Your task to perform on an android device: Is it going to rain this weekend? Image 0: 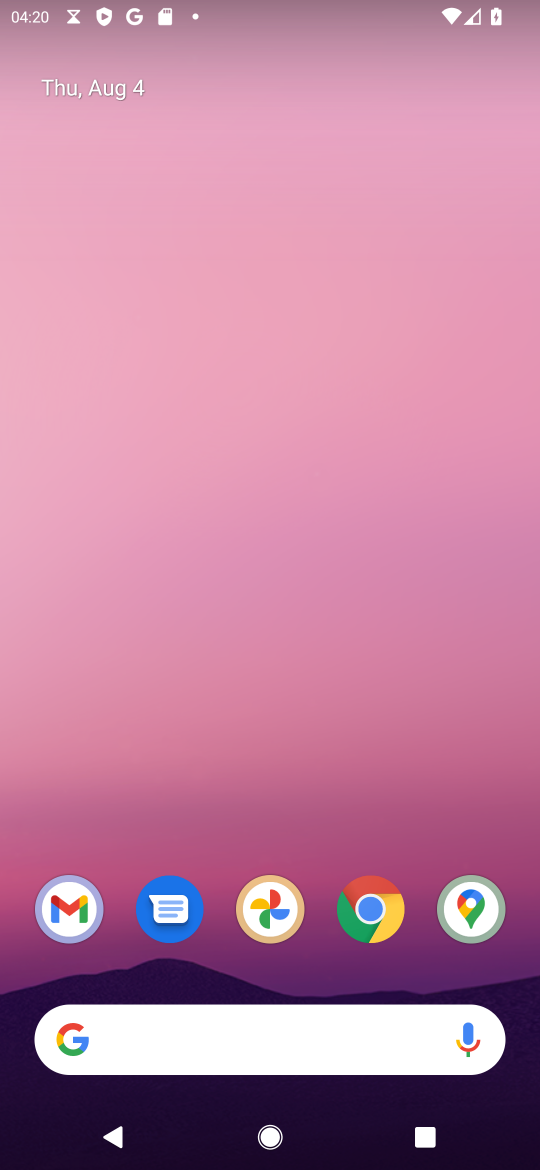
Step 0: click (179, 1032)
Your task to perform on an android device: Is it going to rain this weekend? Image 1: 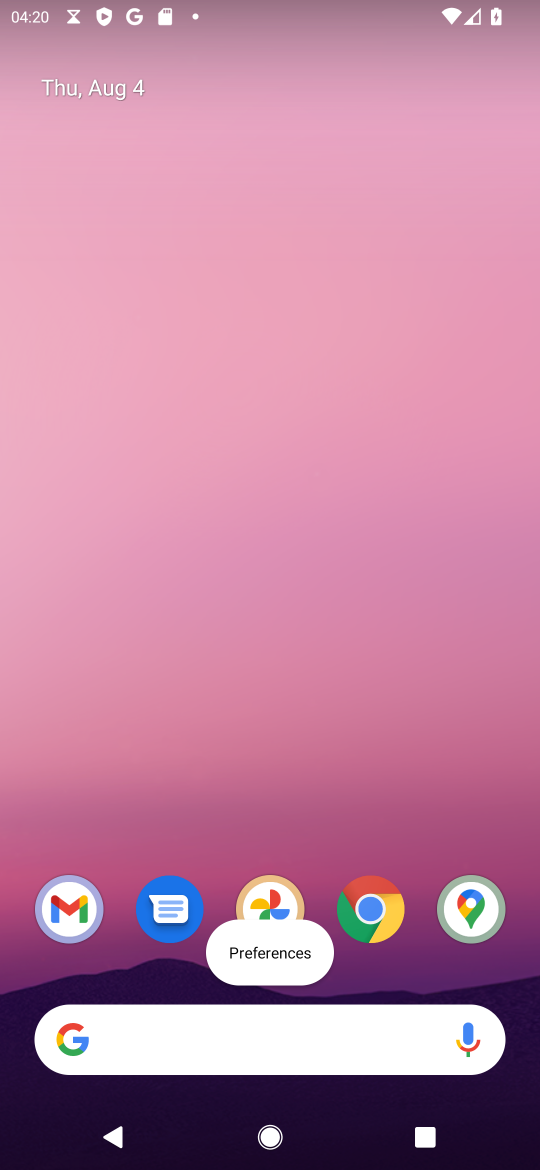
Step 1: click (179, 1035)
Your task to perform on an android device: Is it going to rain this weekend? Image 2: 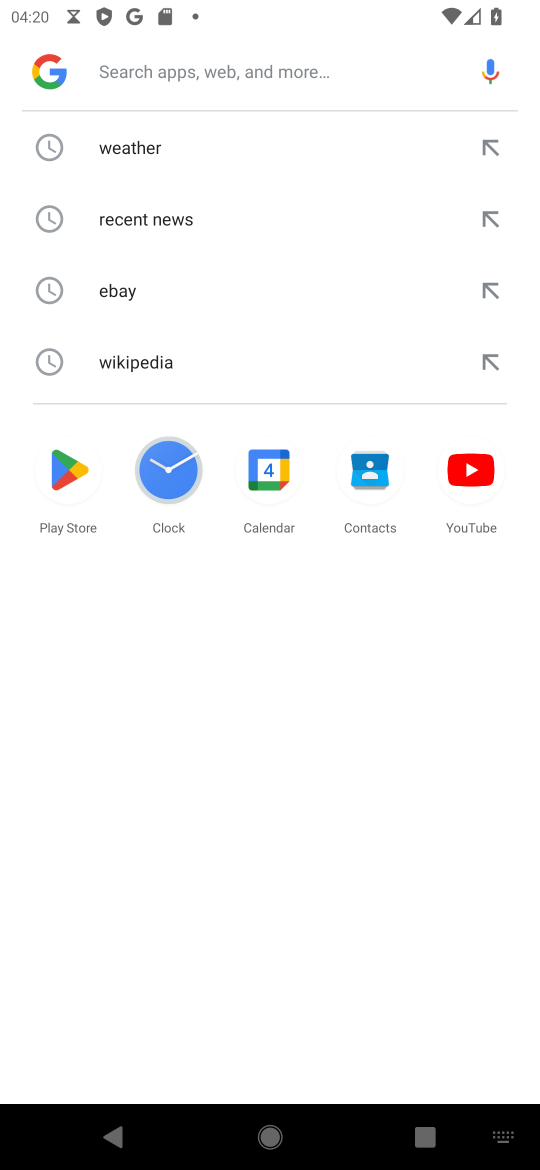
Step 2: click (149, 151)
Your task to perform on an android device: Is it going to rain this weekend? Image 3: 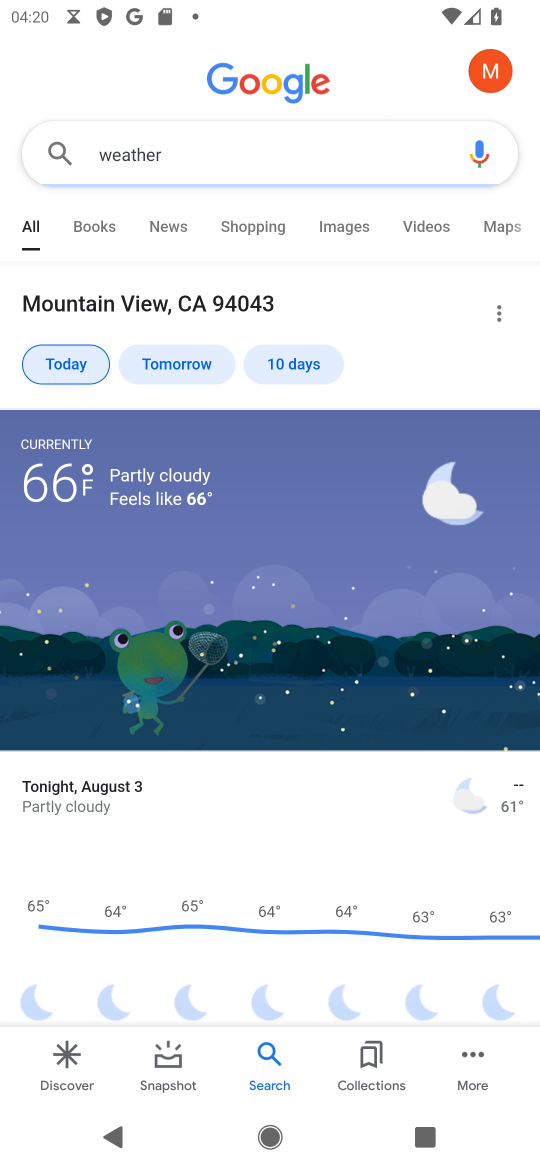
Step 3: click (311, 358)
Your task to perform on an android device: Is it going to rain this weekend? Image 4: 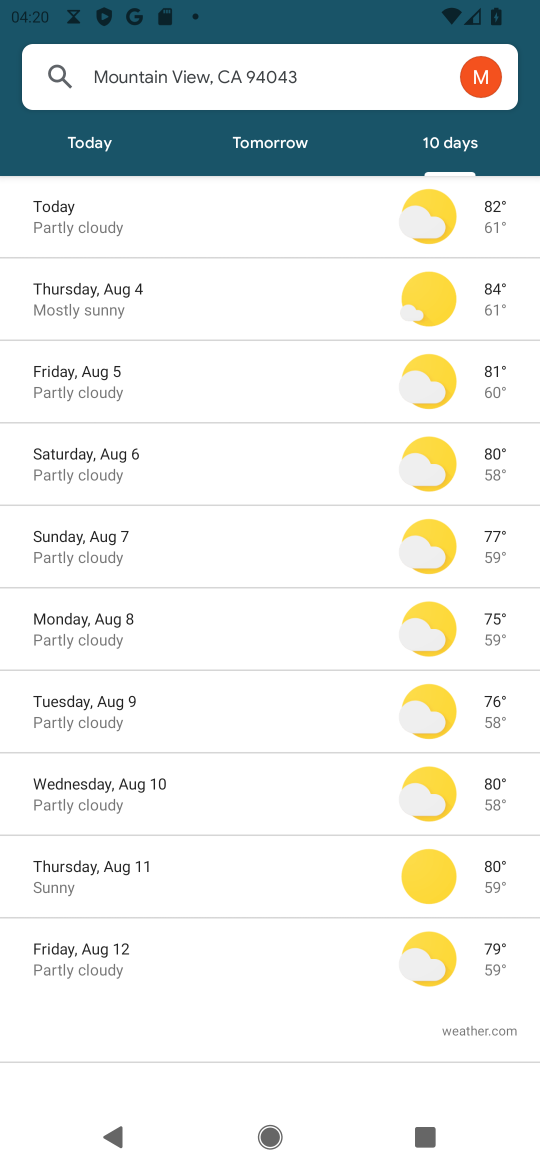
Step 4: click (162, 461)
Your task to perform on an android device: Is it going to rain this weekend? Image 5: 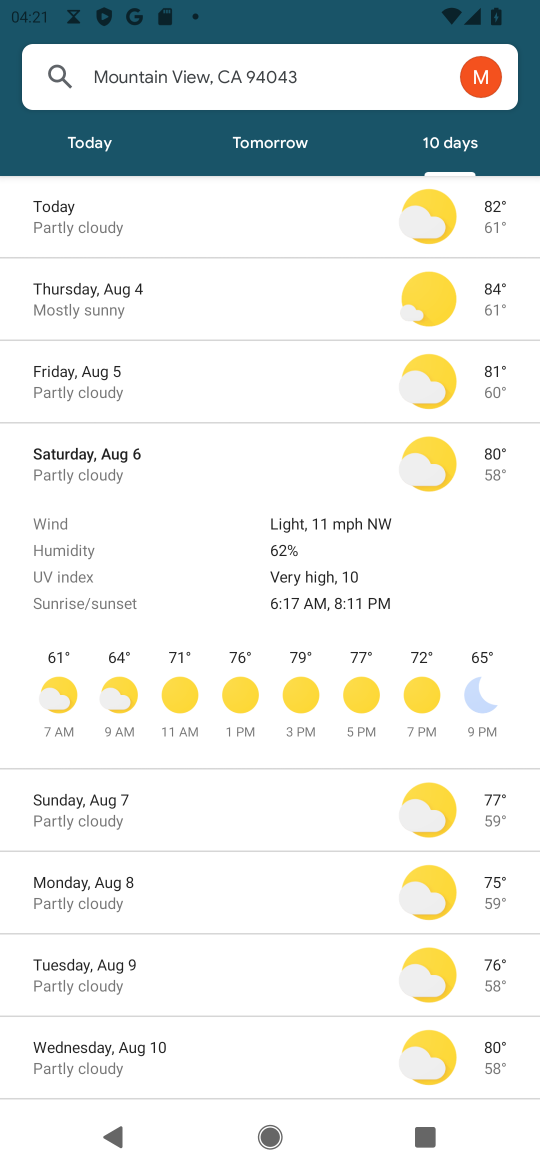
Step 5: task complete